Your task to perform on an android device: snooze an email in the gmail app Image 0: 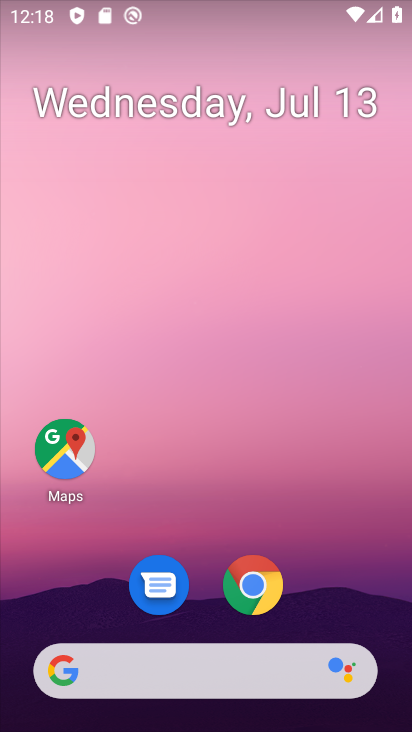
Step 0: drag from (328, 567) to (310, 15)
Your task to perform on an android device: snooze an email in the gmail app Image 1: 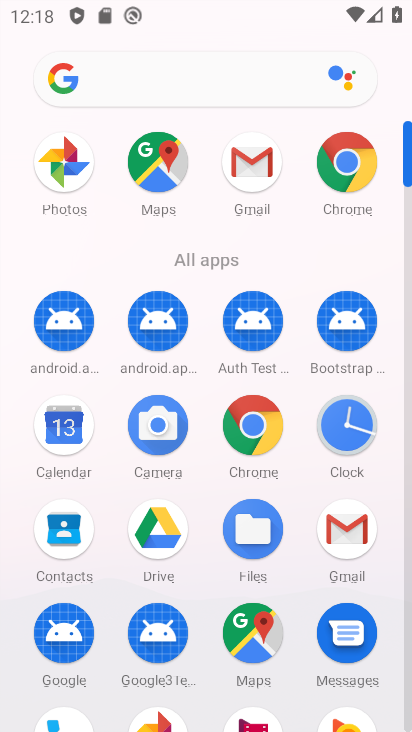
Step 1: click (256, 172)
Your task to perform on an android device: snooze an email in the gmail app Image 2: 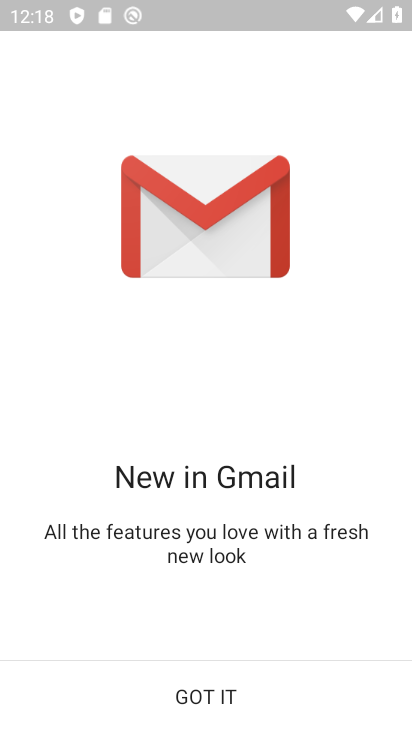
Step 2: click (207, 687)
Your task to perform on an android device: snooze an email in the gmail app Image 3: 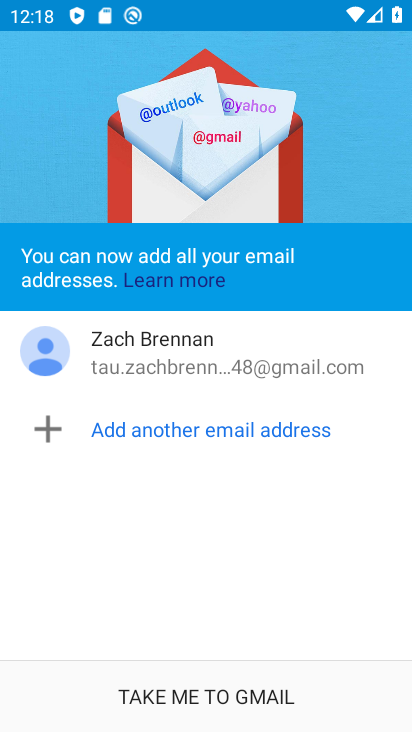
Step 3: click (207, 687)
Your task to perform on an android device: snooze an email in the gmail app Image 4: 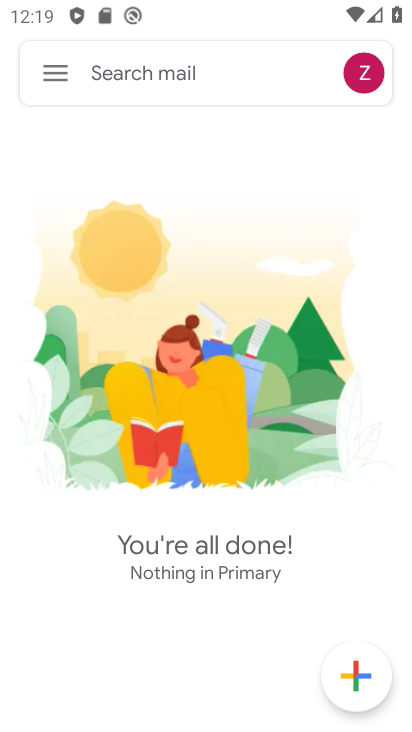
Step 4: click (59, 69)
Your task to perform on an android device: snooze an email in the gmail app Image 5: 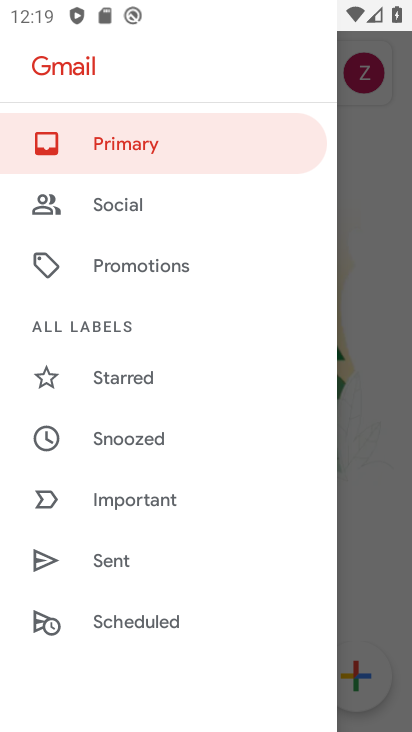
Step 5: drag from (180, 548) to (178, 59)
Your task to perform on an android device: snooze an email in the gmail app Image 6: 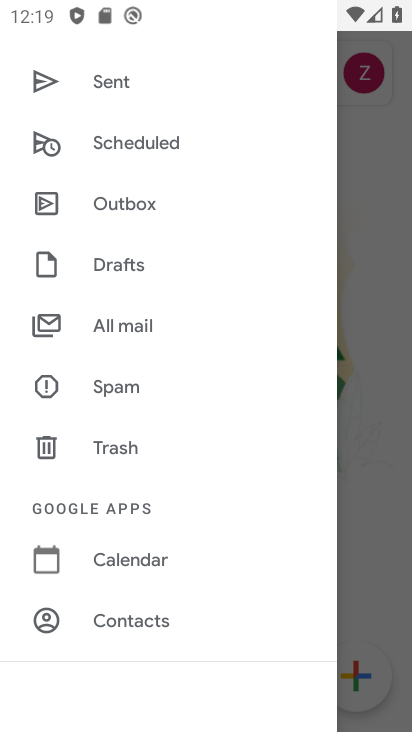
Step 6: click (146, 327)
Your task to perform on an android device: snooze an email in the gmail app Image 7: 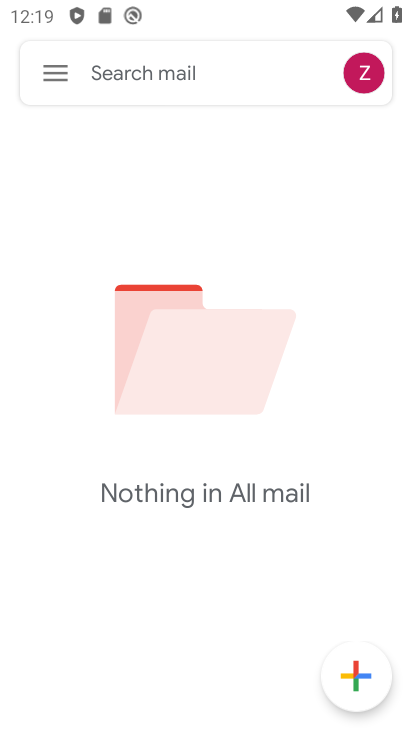
Step 7: task complete